Your task to perform on an android device: empty trash in google photos Image 0: 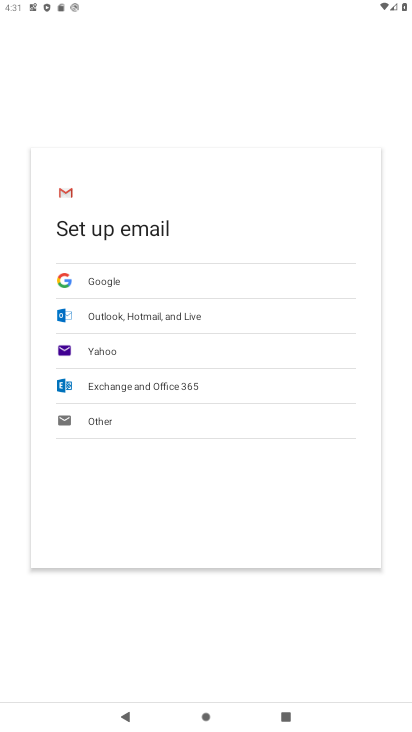
Step 0: press home button
Your task to perform on an android device: empty trash in google photos Image 1: 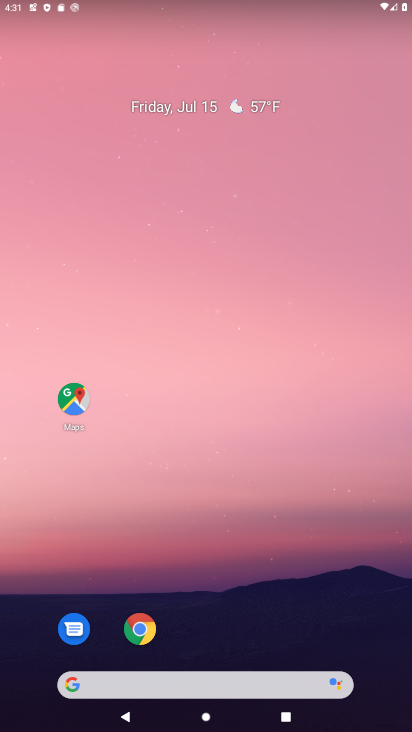
Step 1: drag from (246, 584) to (293, 29)
Your task to perform on an android device: empty trash in google photos Image 2: 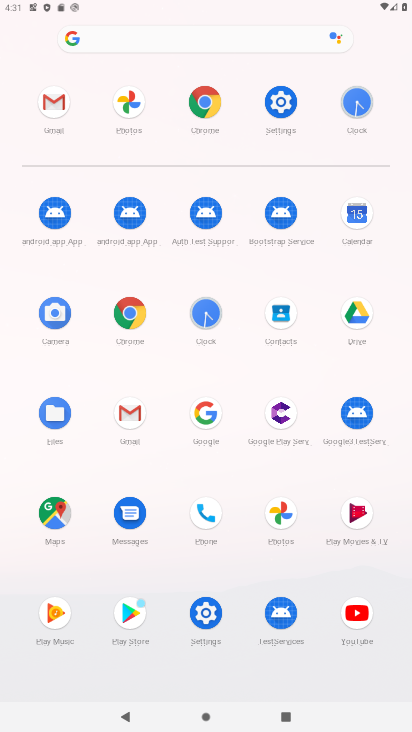
Step 2: click (128, 102)
Your task to perform on an android device: empty trash in google photos Image 3: 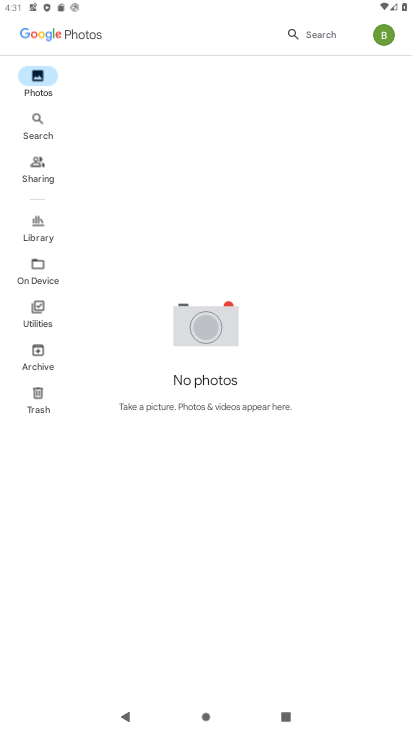
Step 3: click (34, 389)
Your task to perform on an android device: empty trash in google photos Image 4: 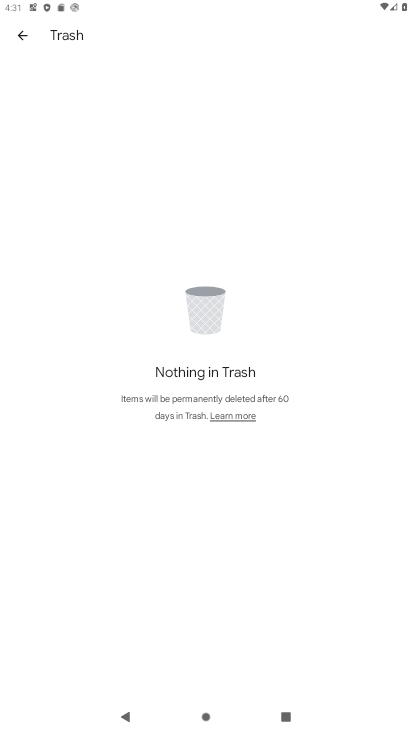
Step 4: task complete